Your task to perform on an android device: add a contact Image 0: 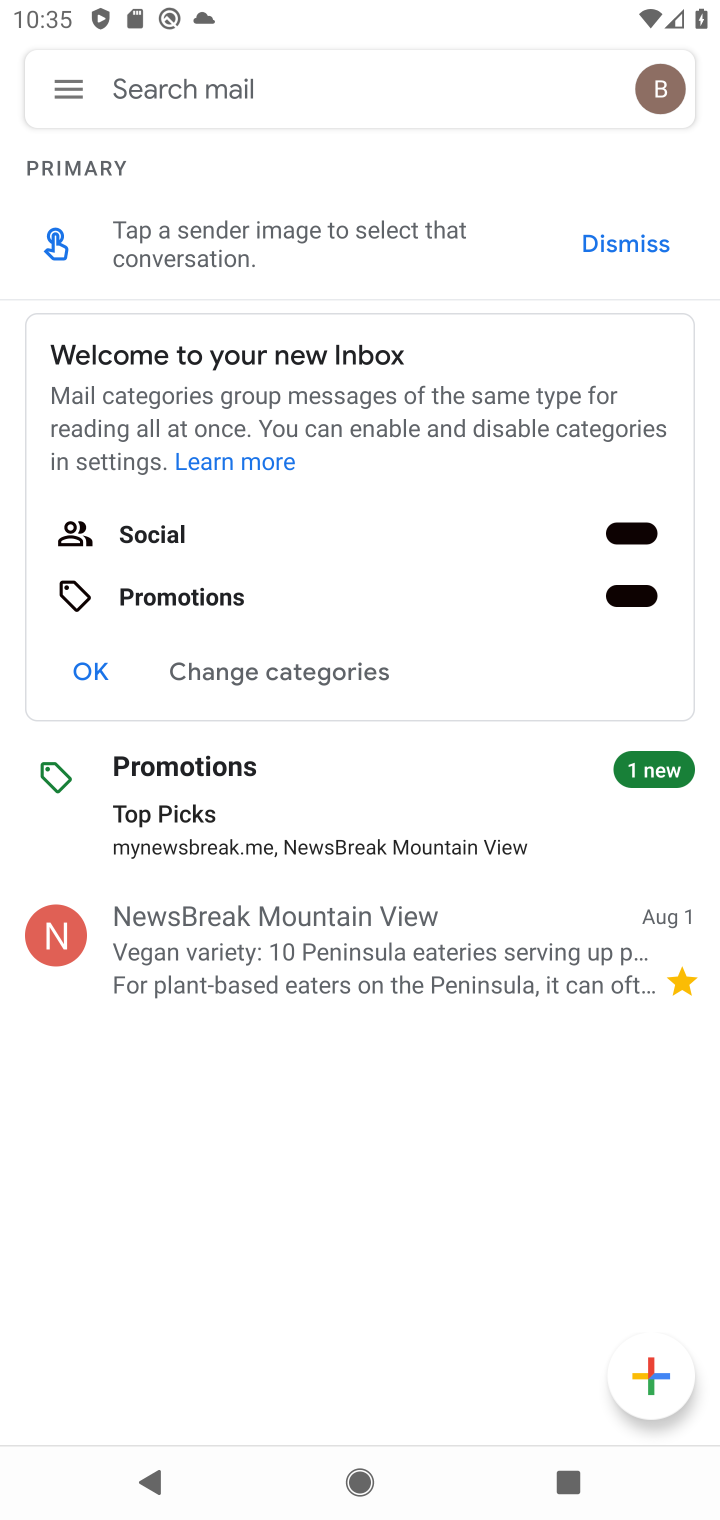
Step 0: press back button
Your task to perform on an android device: add a contact Image 1: 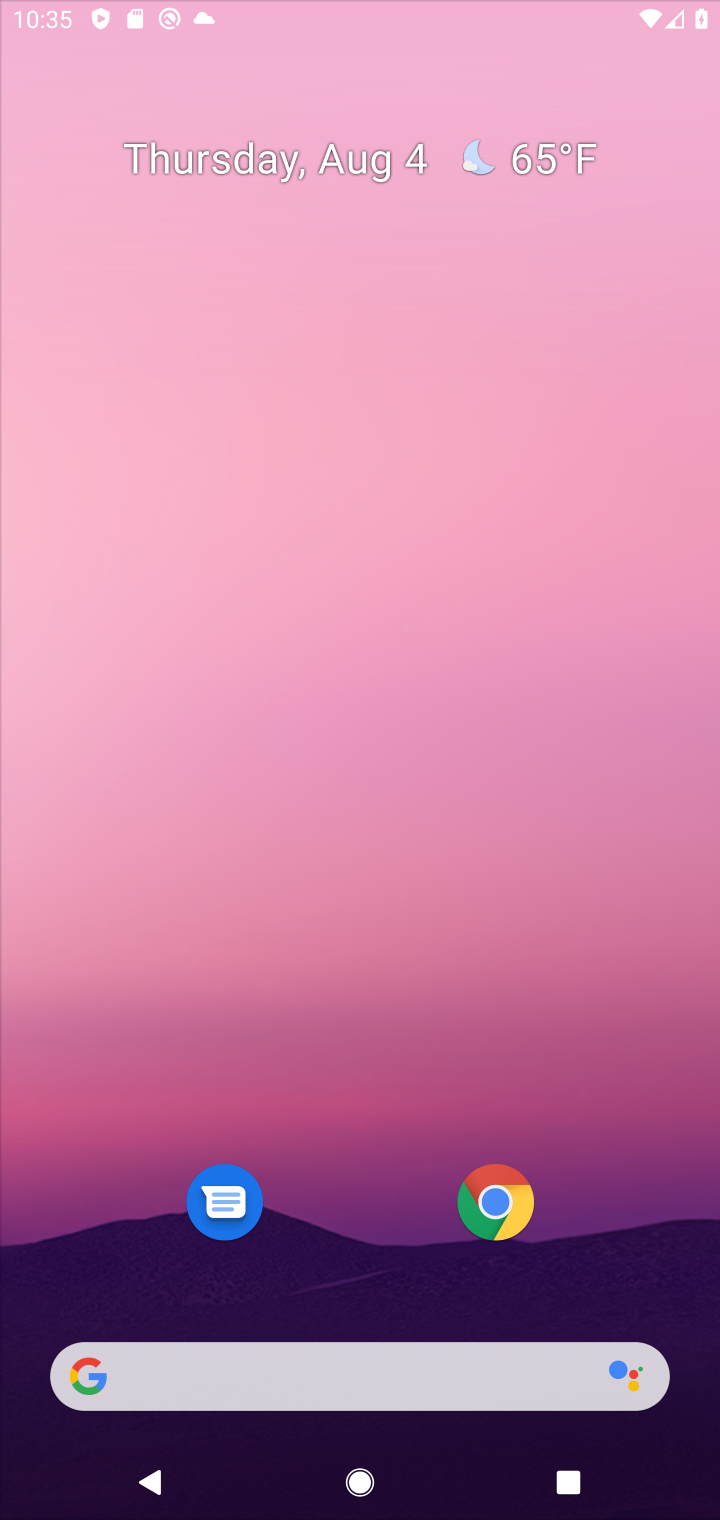
Step 1: press back button
Your task to perform on an android device: add a contact Image 2: 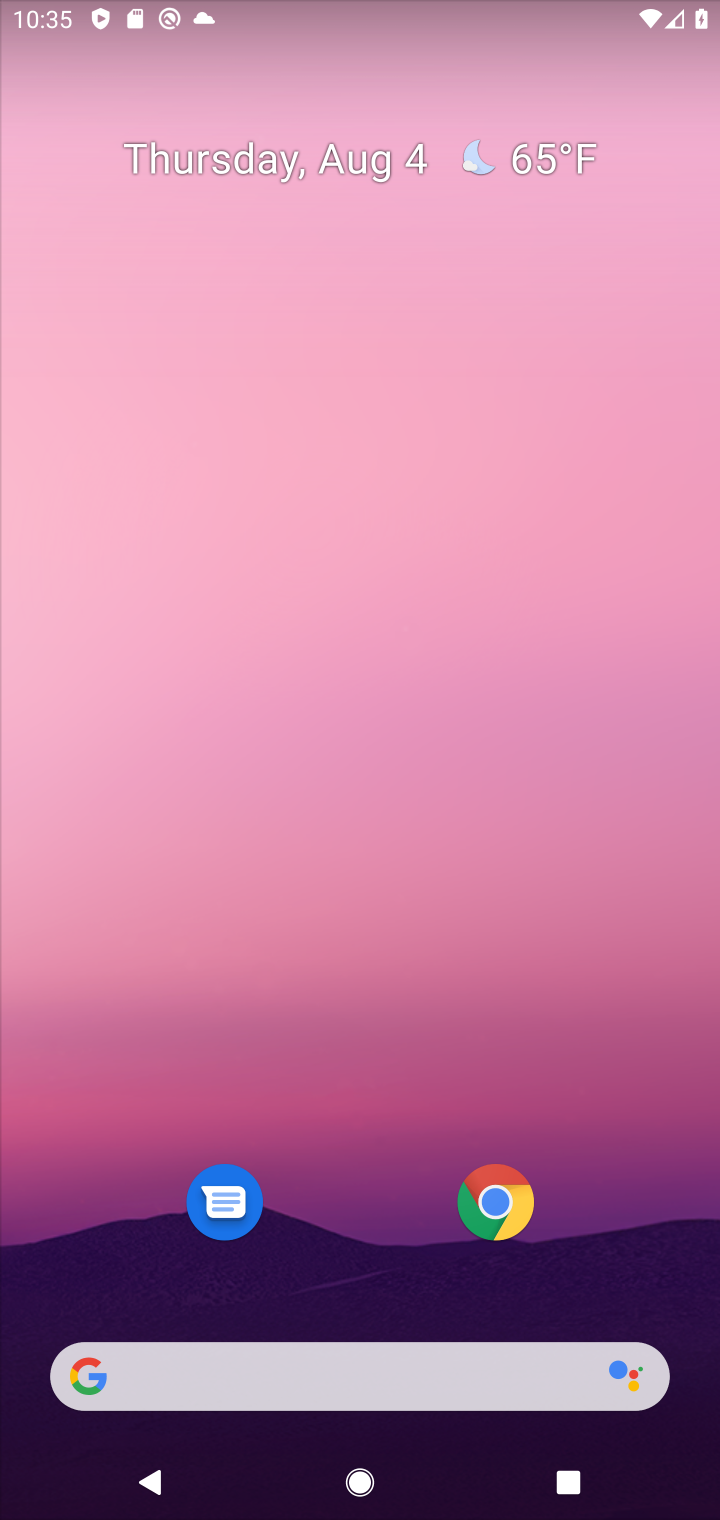
Step 2: drag from (373, 974) to (447, 45)
Your task to perform on an android device: add a contact Image 3: 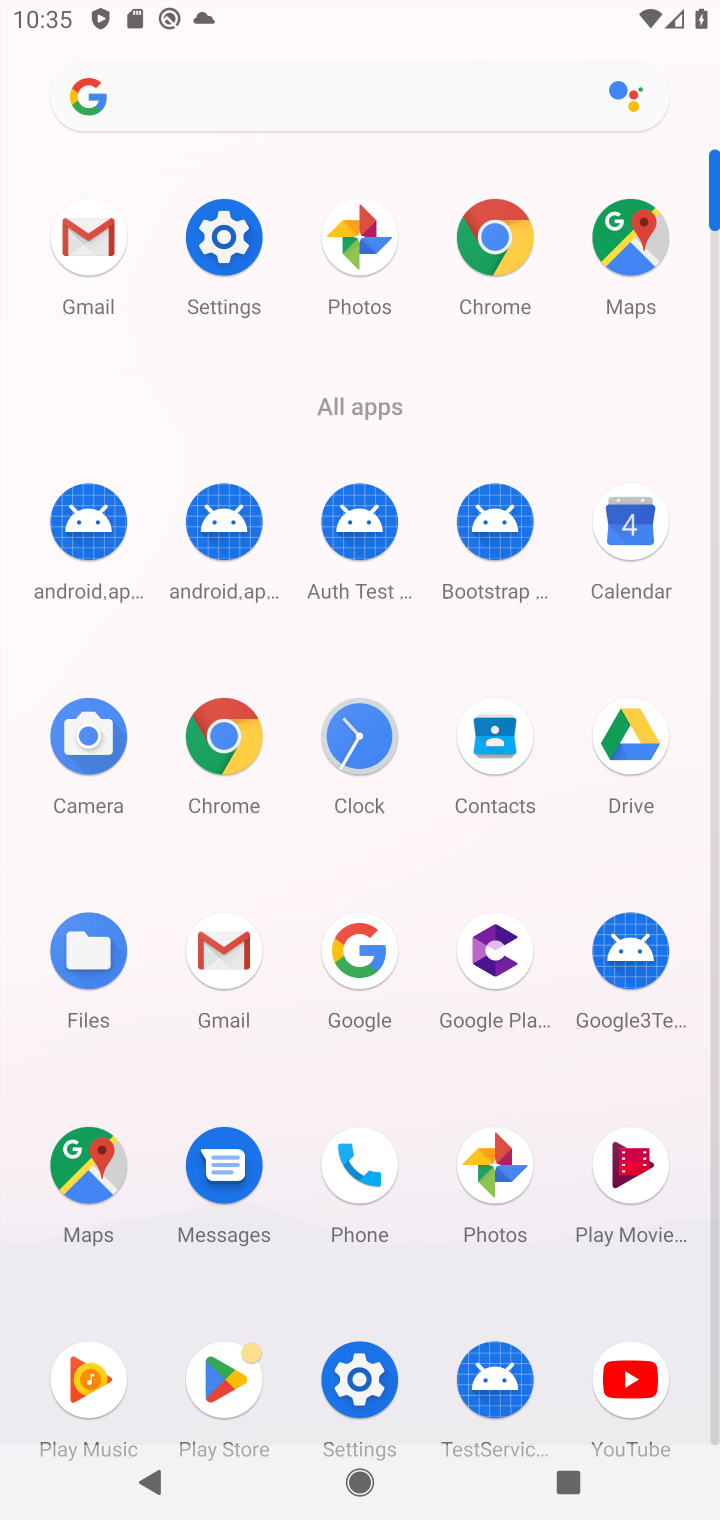
Step 3: click (490, 722)
Your task to perform on an android device: add a contact Image 4: 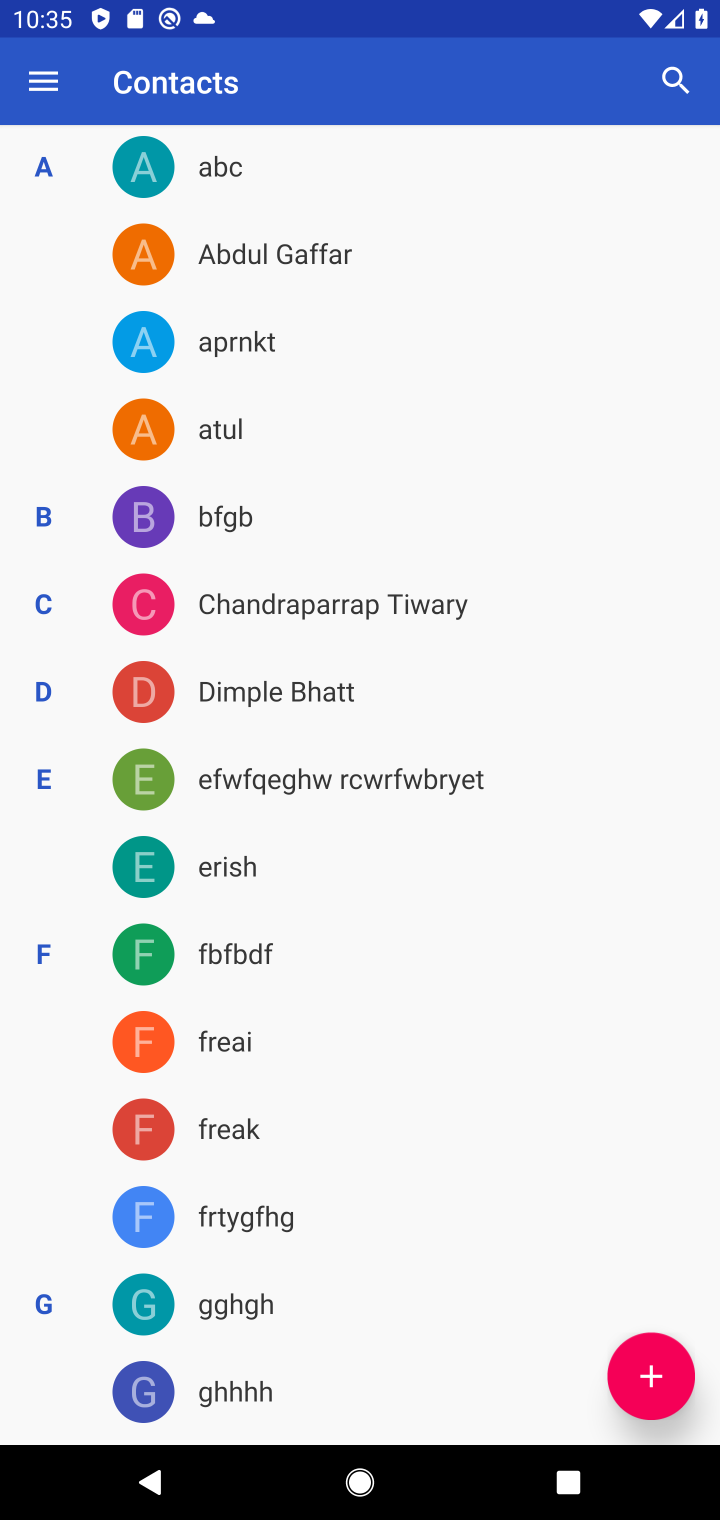
Step 4: click (651, 1364)
Your task to perform on an android device: add a contact Image 5: 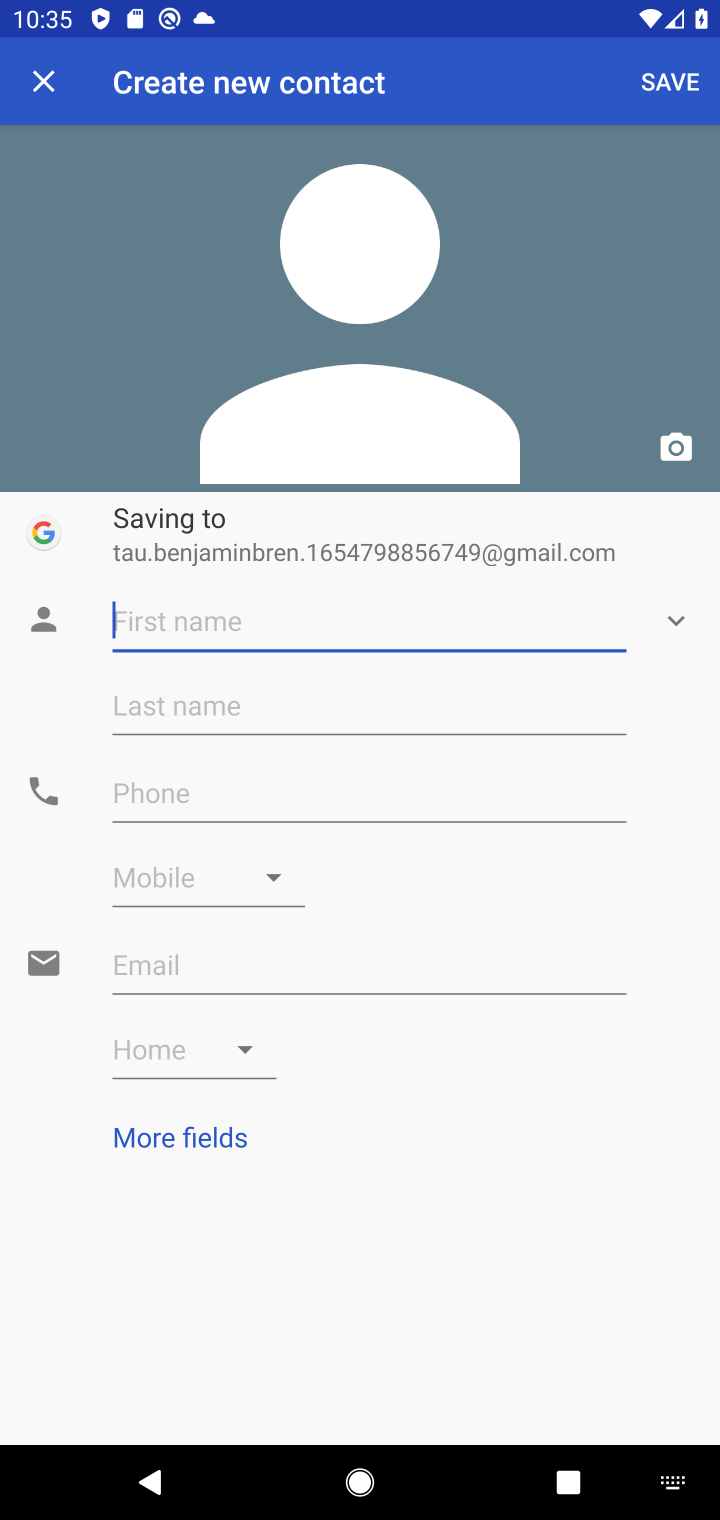
Step 5: click (289, 611)
Your task to perform on an android device: add a contact Image 6: 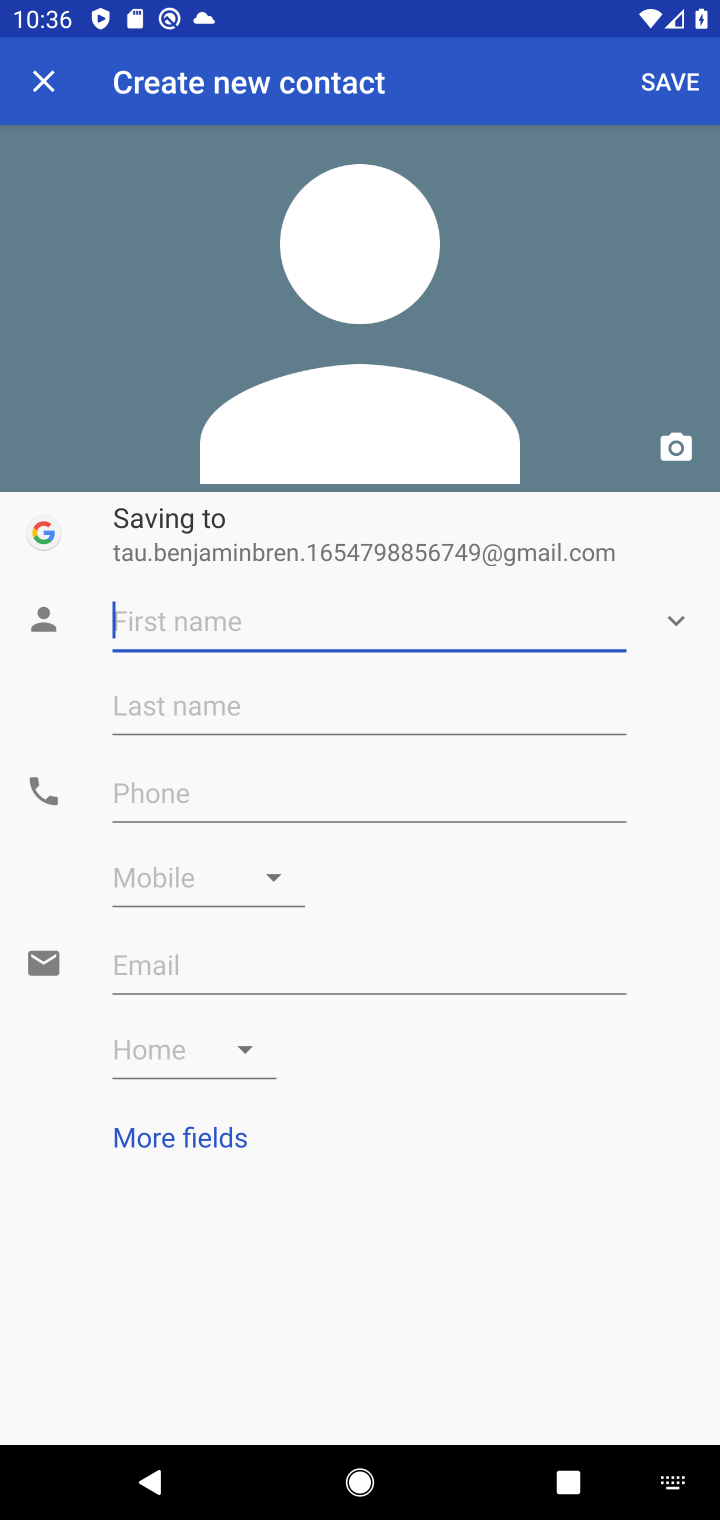
Step 6: type "hghfvh"
Your task to perform on an android device: add a contact Image 7: 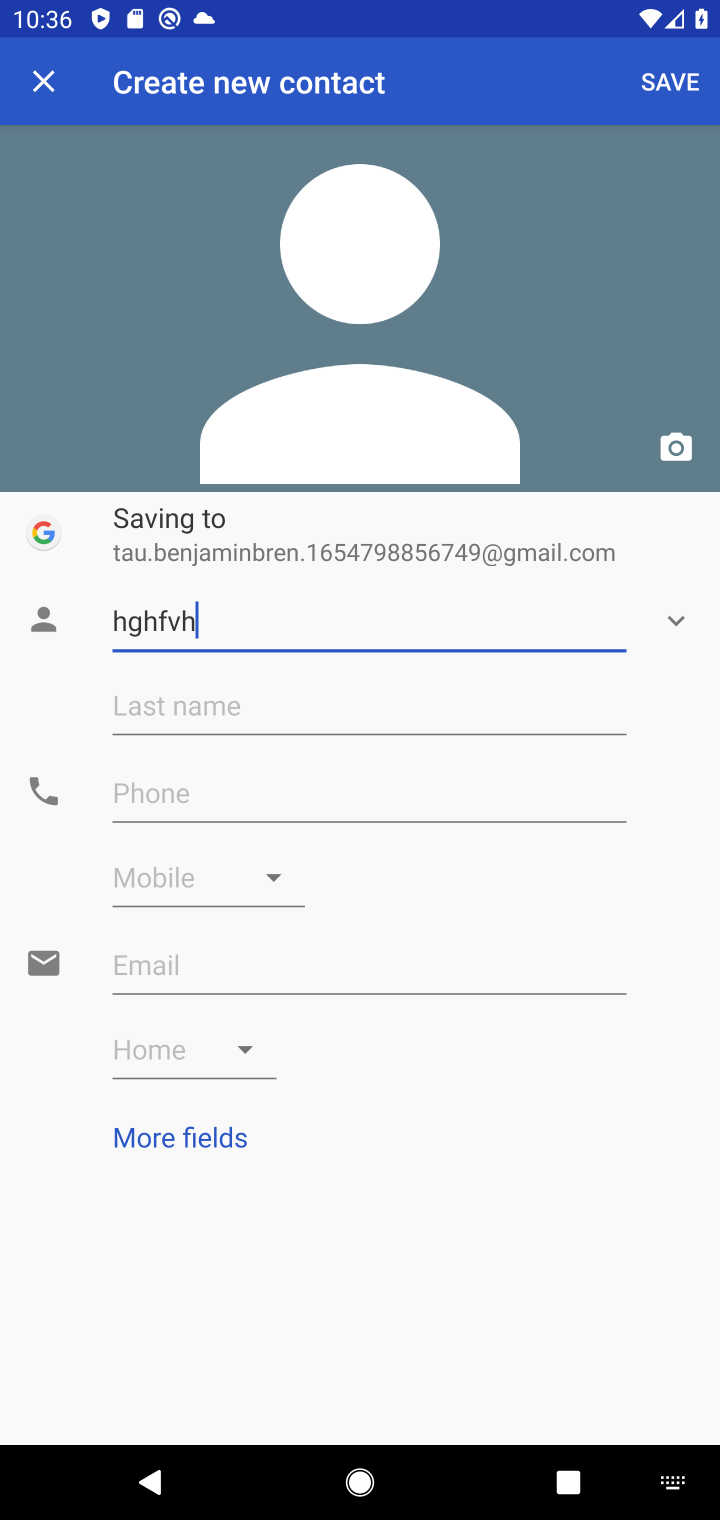
Step 7: click (256, 794)
Your task to perform on an android device: add a contact Image 8: 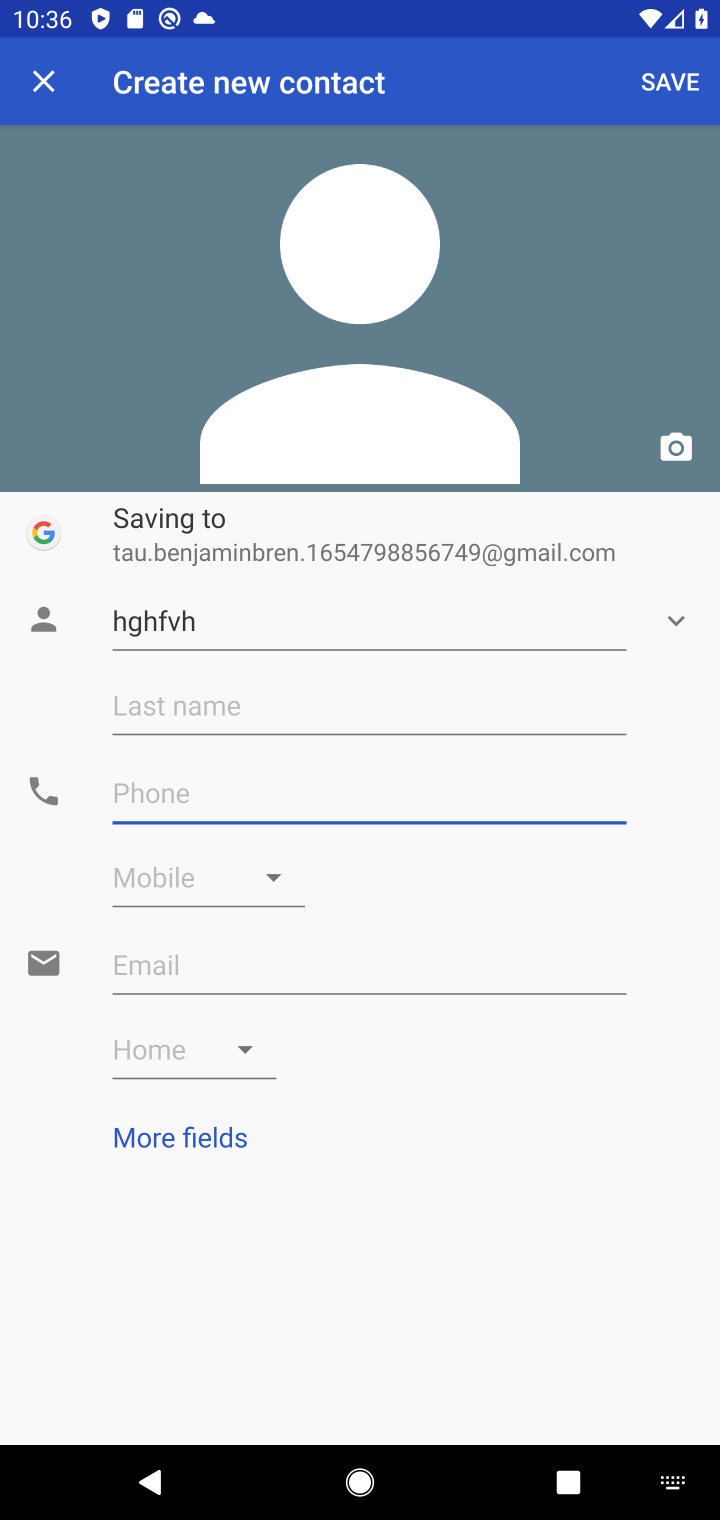
Step 8: type "76767"
Your task to perform on an android device: add a contact Image 9: 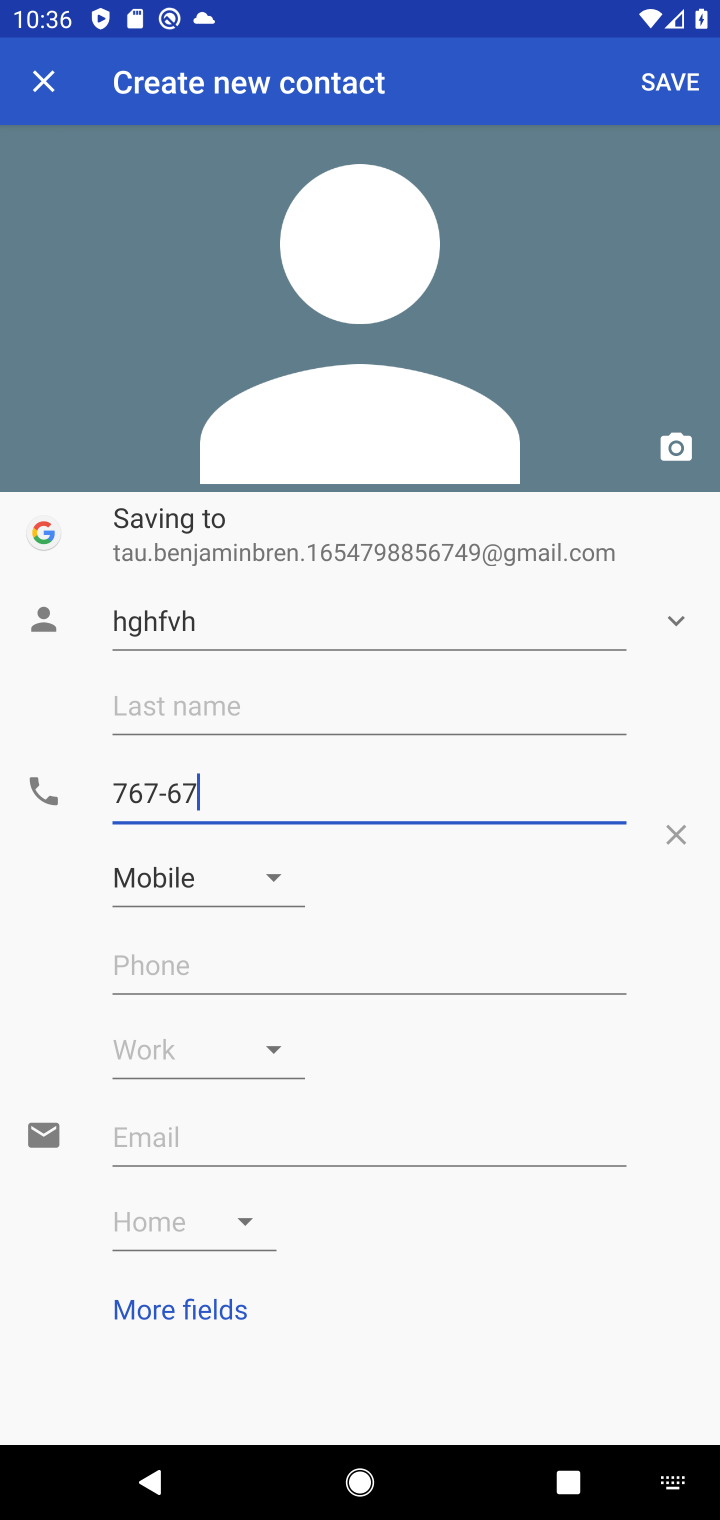
Step 9: click (671, 96)
Your task to perform on an android device: add a contact Image 10: 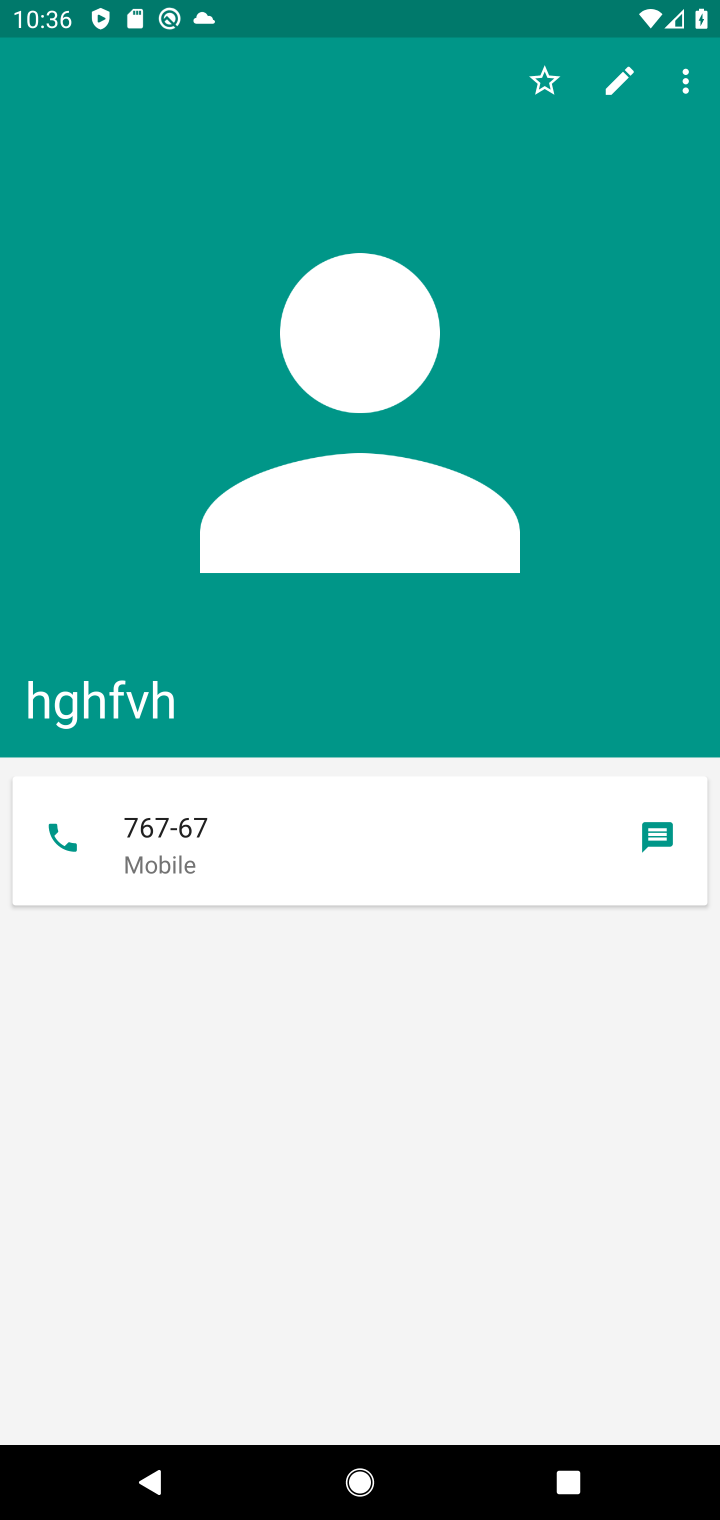
Step 10: task complete